Your task to perform on an android device: Open settings on Google Maps Image 0: 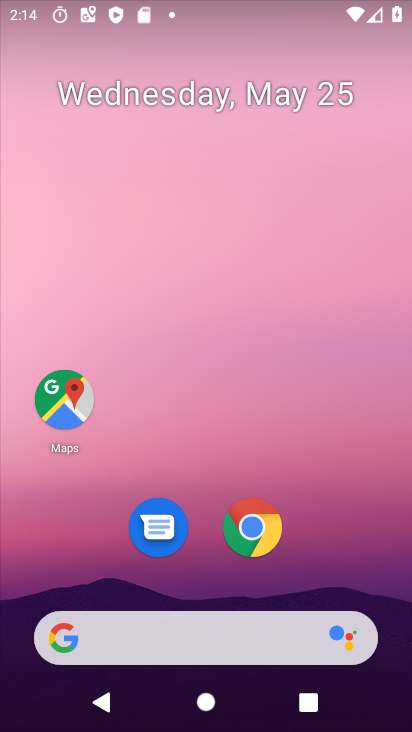
Step 0: drag from (198, 597) to (296, 97)
Your task to perform on an android device: Open settings on Google Maps Image 1: 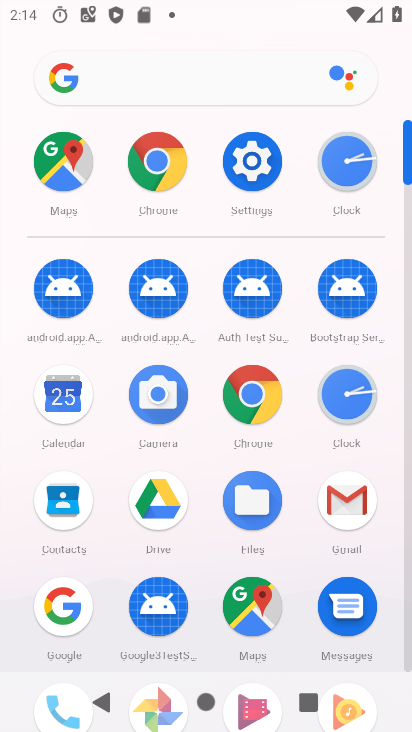
Step 1: click (250, 606)
Your task to perform on an android device: Open settings on Google Maps Image 2: 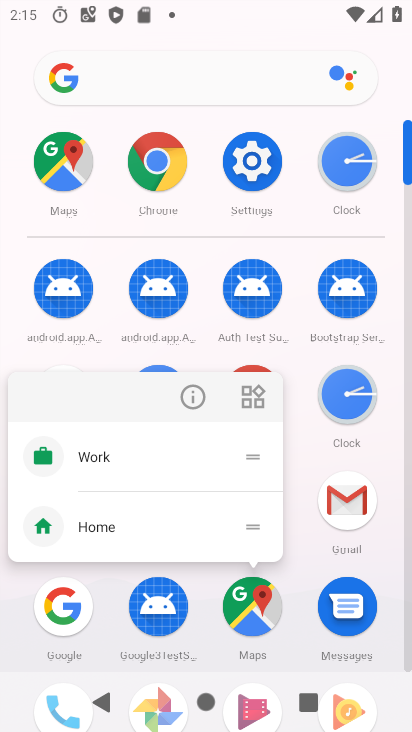
Step 2: click (210, 394)
Your task to perform on an android device: Open settings on Google Maps Image 3: 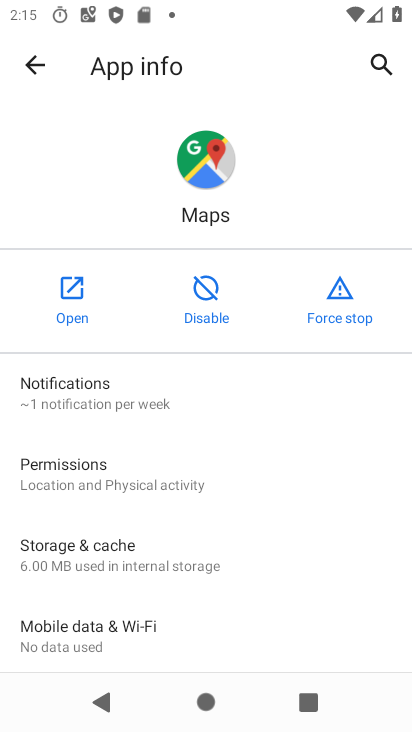
Step 3: click (71, 319)
Your task to perform on an android device: Open settings on Google Maps Image 4: 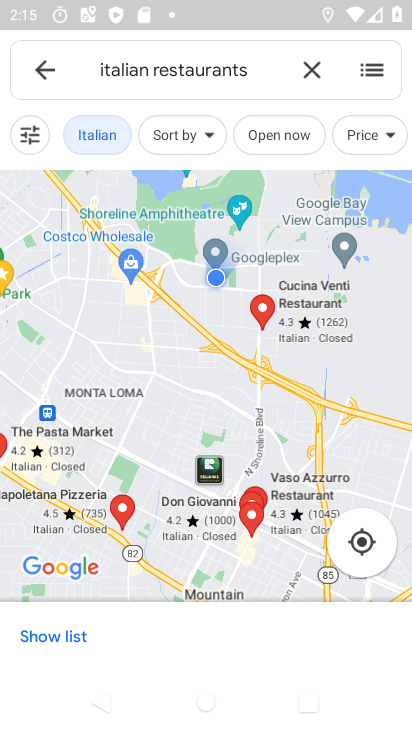
Step 4: click (51, 64)
Your task to perform on an android device: Open settings on Google Maps Image 5: 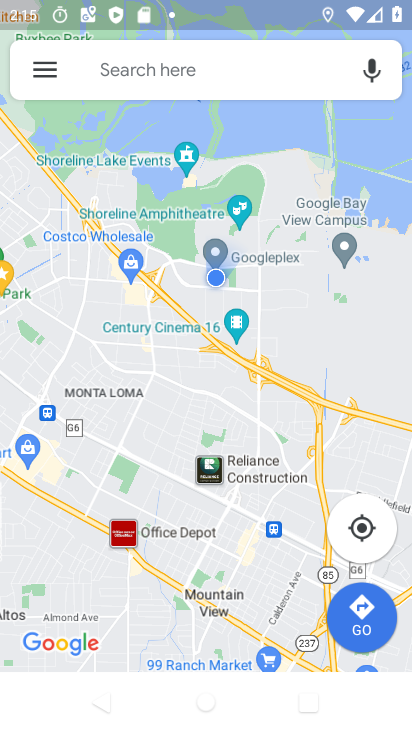
Step 5: click (49, 64)
Your task to perform on an android device: Open settings on Google Maps Image 6: 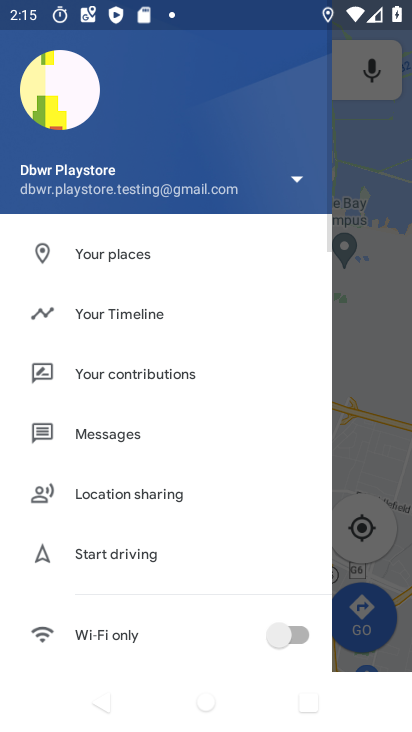
Step 6: drag from (149, 535) to (204, 155)
Your task to perform on an android device: Open settings on Google Maps Image 7: 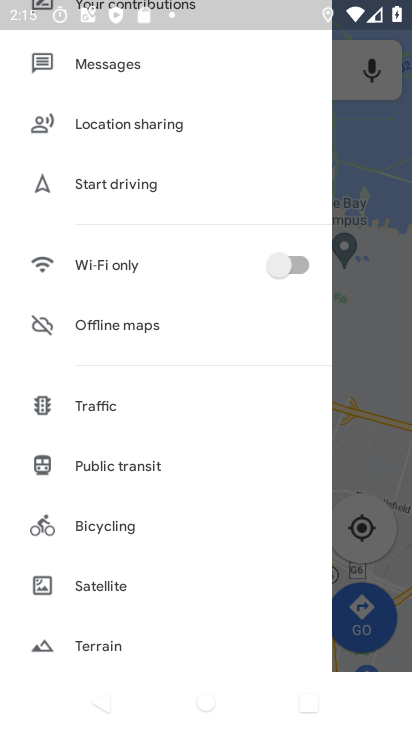
Step 7: drag from (109, 577) to (161, 99)
Your task to perform on an android device: Open settings on Google Maps Image 8: 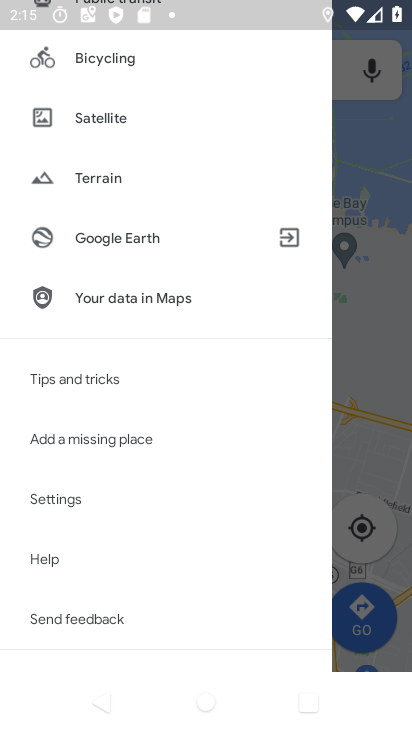
Step 8: click (54, 498)
Your task to perform on an android device: Open settings on Google Maps Image 9: 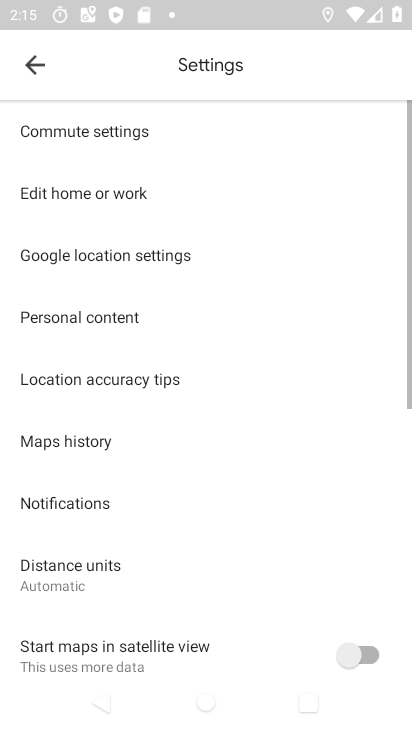
Step 9: task complete